Your task to perform on an android device: clear history in the chrome app Image 0: 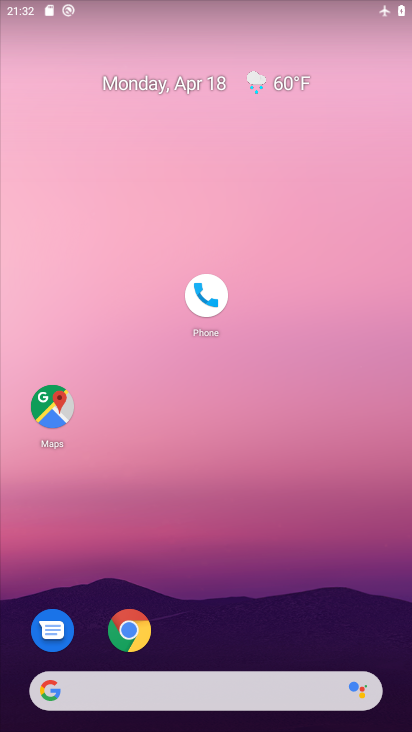
Step 0: drag from (328, 603) to (295, 101)
Your task to perform on an android device: clear history in the chrome app Image 1: 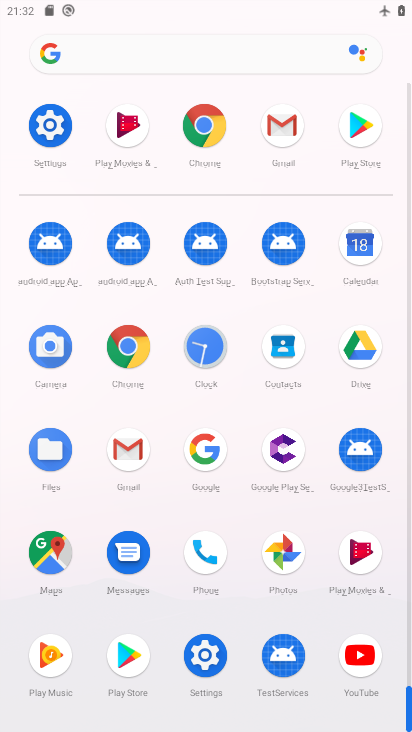
Step 1: click (119, 356)
Your task to perform on an android device: clear history in the chrome app Image 2: 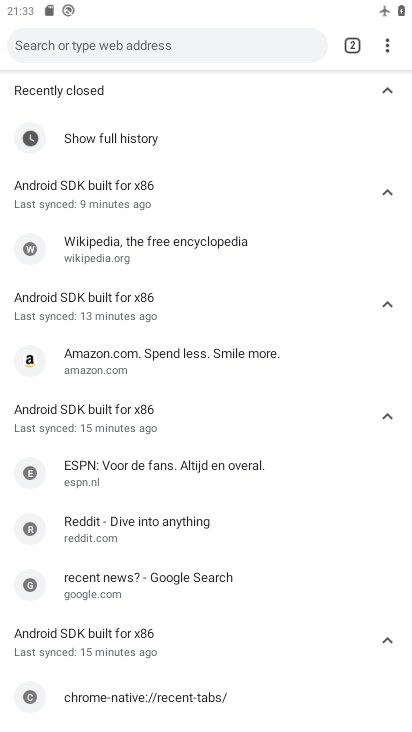
Step 2: click (385, 47)
Your task to perform on an android device: clear history in the chrome app Image 3: 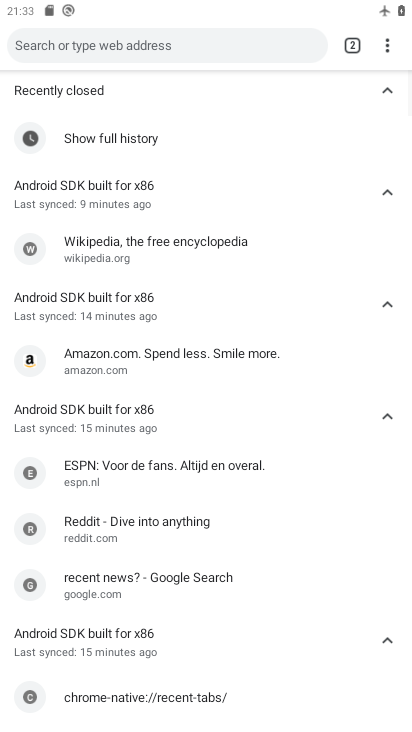
Step 3: task complete